Your task to perform on an android device: Go to calendar. Show me events next week Image 0: 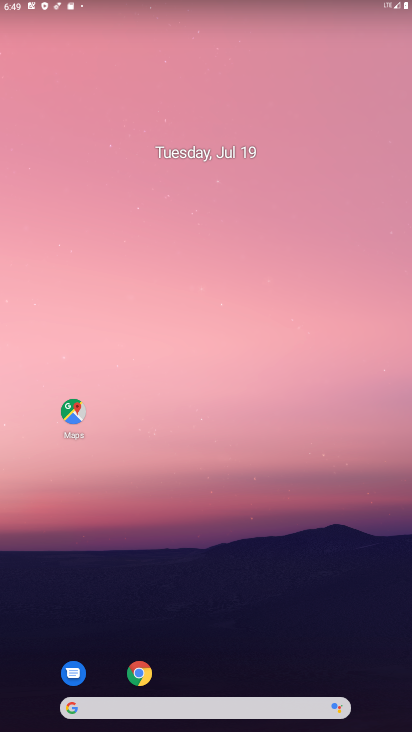
Step 0: drag from (385, 667) to (288, 12)
Your task to perform on an android device: Go to calendar. Show me events next week Image 1: 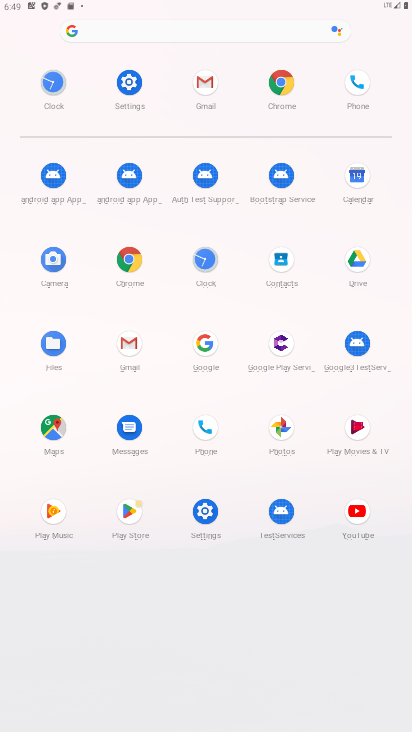
Step 1: click (355, 203)
Your task to perform on an android device: Go to calendar. Show me events next week Image 2: 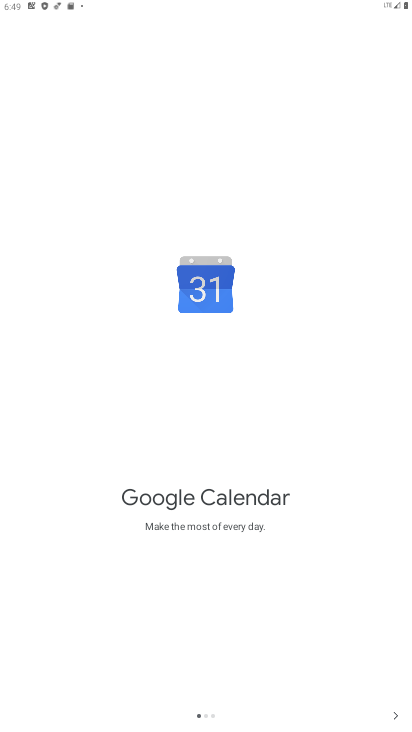
Step 2: click (395, 716)
Your task to perform on an android device: Go to calendar. Show me events next week Image 3: 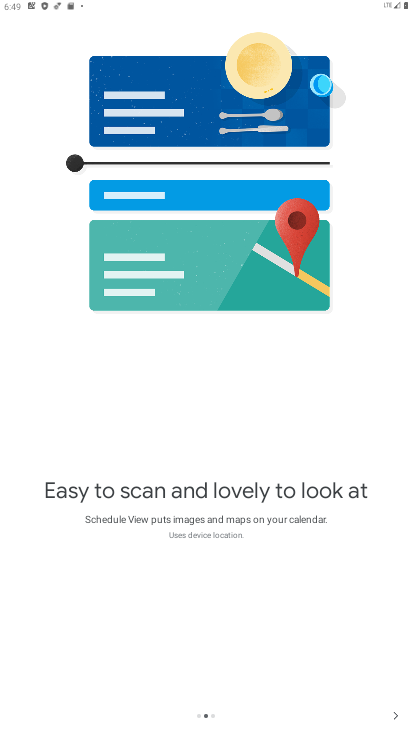
Step 3: click (395, 716)
Your task to perform on an android device: Go to calendar. Show me events next week Image 4: 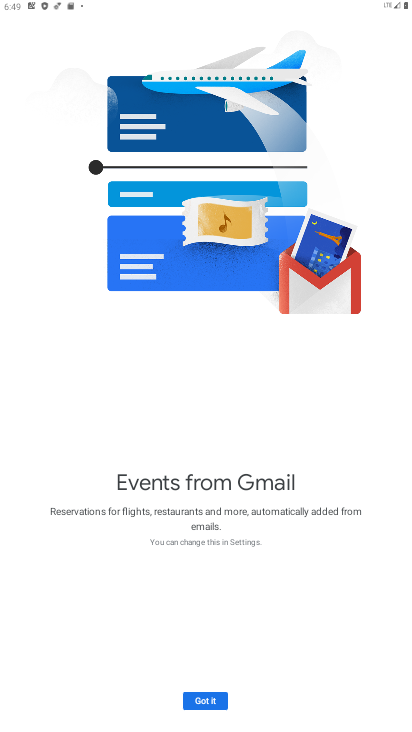
Step 4: click (219, 696)
Your task to perform on an android device: Go to calendar. Show me events next week Image 5: 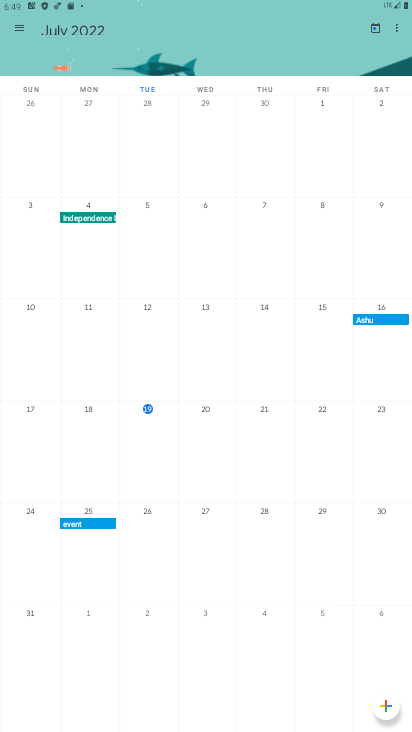
Step 5: task complete